Your task to perform on an android device: choose inbox layout in the gmail app Image 0: 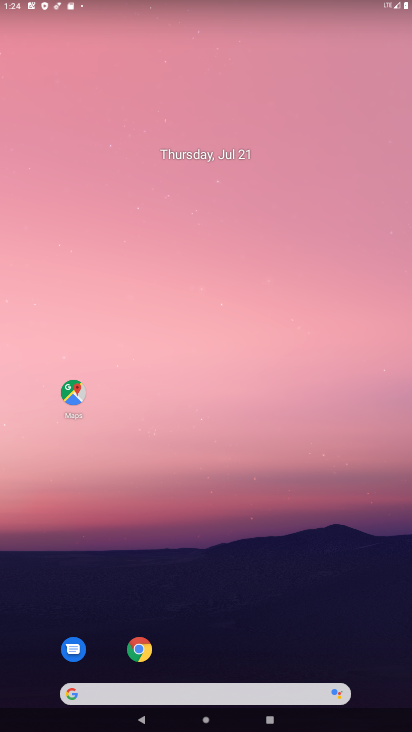
Step 0: drag from (232, 709) to (205, 261)
Your task to perform on an android device: choose inbox layout in the gmail app Image 1: 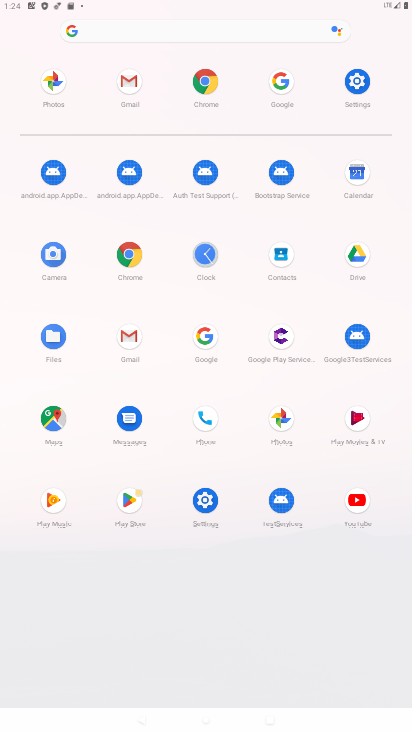
Step 1: click (129, 332)
Your task to perform on an android device: choose inbox layout in the gmail app Image 2: 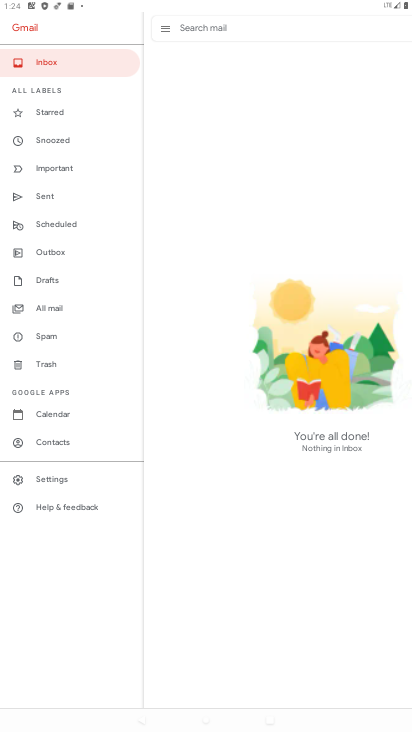
Step 2: click (54, 475)
Your task to perform on an android device: choose inbox layout in the gmail app Image 3: 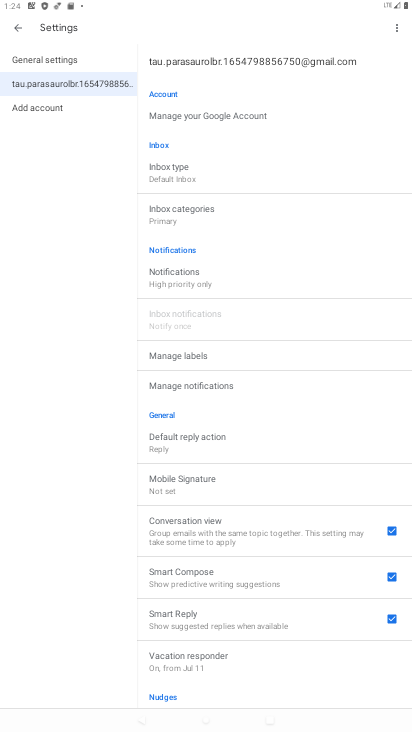
Step 3: click (185, 172)
Your task to perform on an android device: choose inbox layout in the gmail app Image 4: 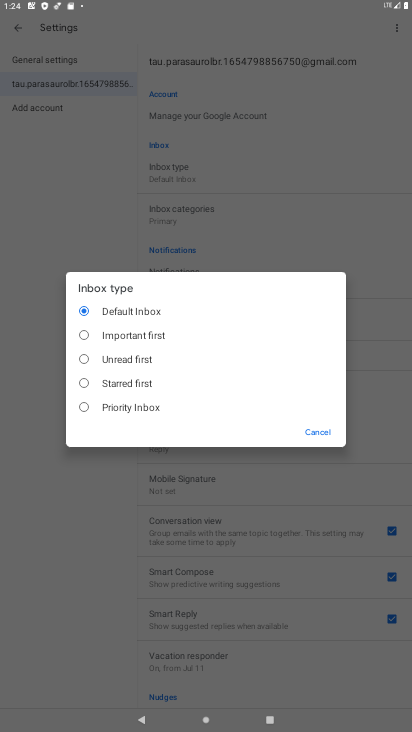
Step 4: click (87, 404)
Your task to perform on an android device: choose inbox layout in the gmail app Image 5: 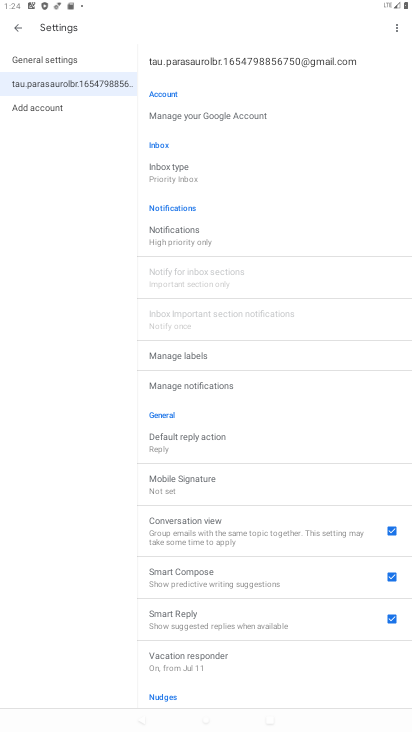
Step 5: task complete